Your task to perform on an android device: What is the recent news? Image 0: 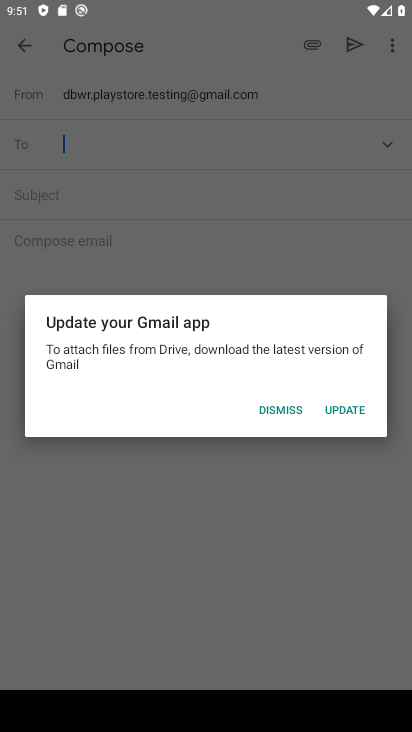
Step 0: press home button
Your task to perform on an android device: What is the recent news? Image 1: 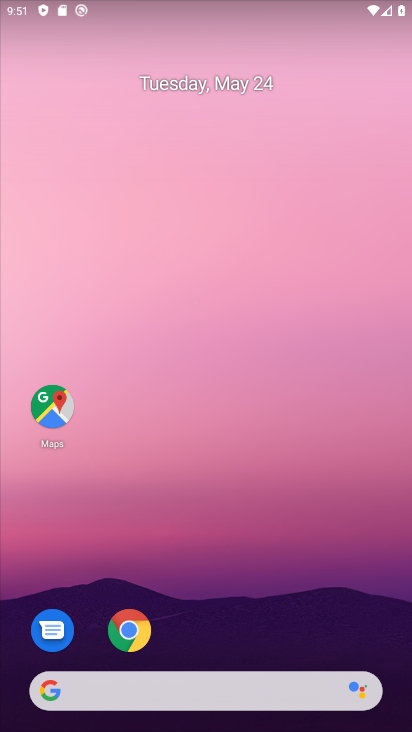
Step 1: task complete